Your task to perform on an android device: Clear all items from cart on bestbuy.com. Image 0: 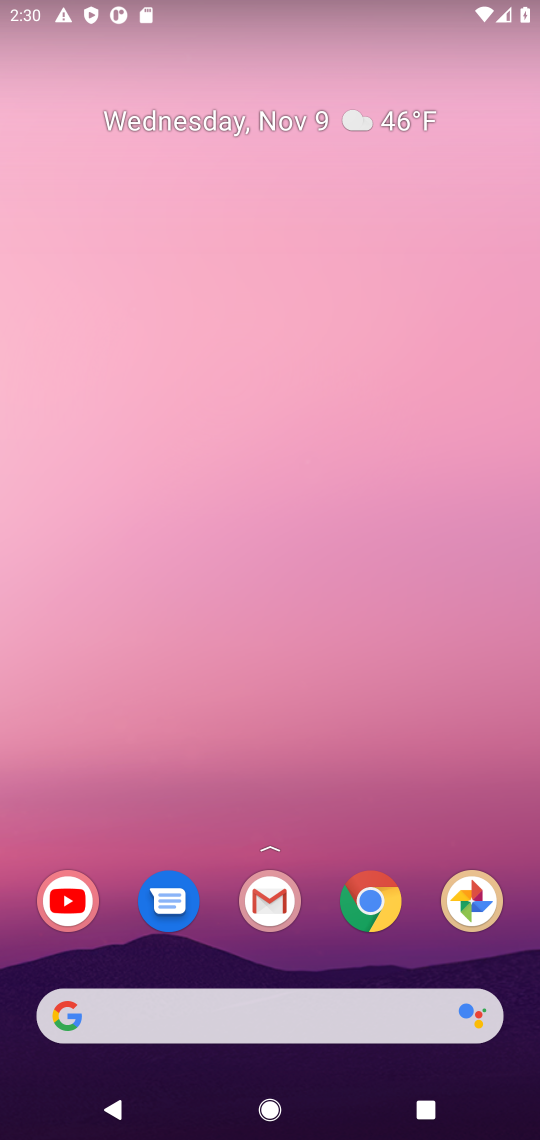
Step 0: click (369, 899)
Your task to perform on an android device: Clear all items from cart on bestbuy.com. Image 1: 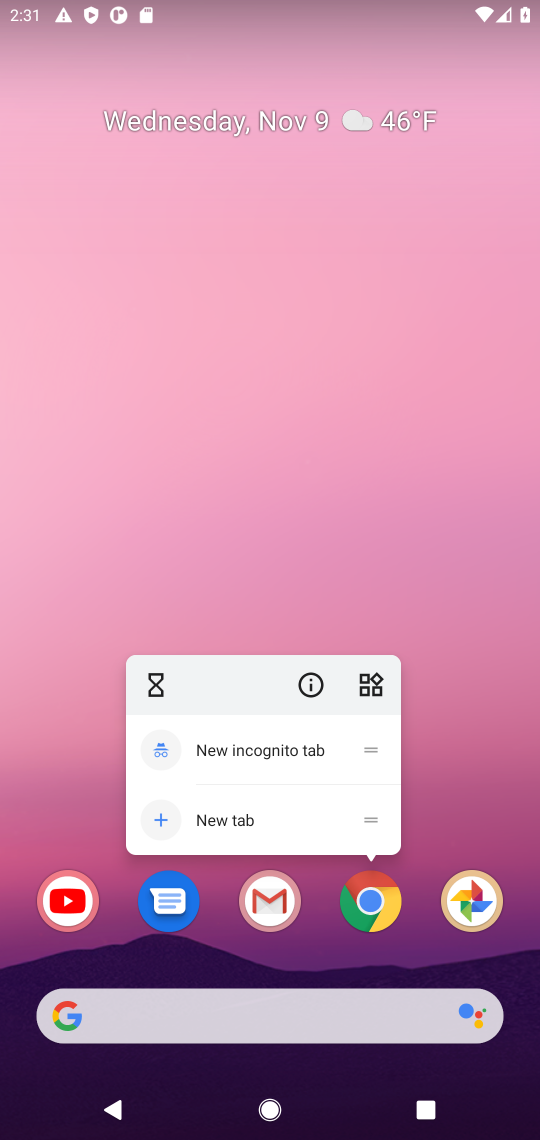
Step 1: click (369, 899)
Your task to perform on an android device: Clear all items from cart on bestbuy.com. Image 2: 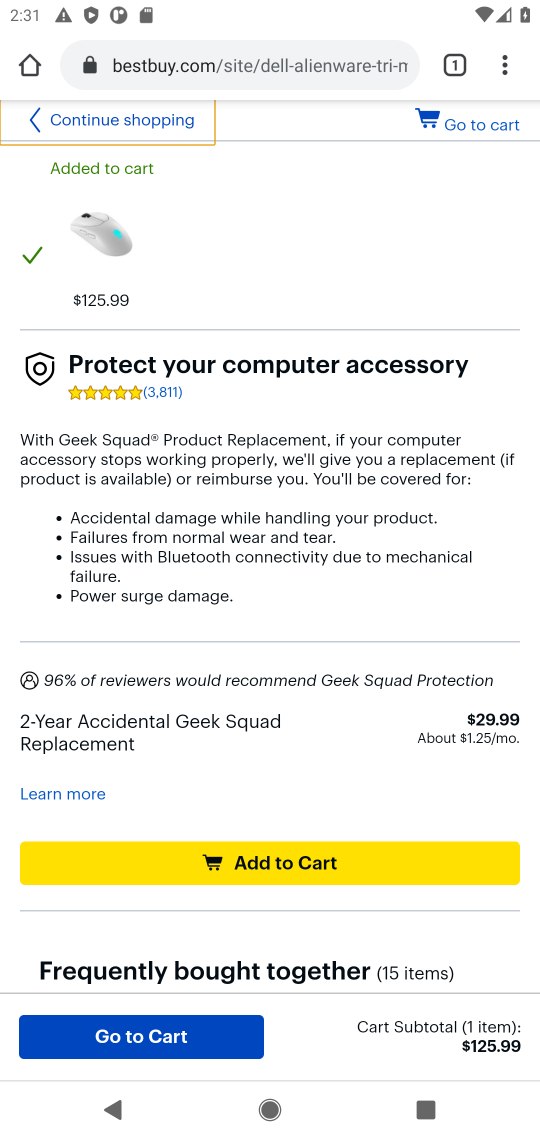
Step 2: drag from (357, 212) to (439, 824)
Your task to perform on an android device: Clear all items from cart on bestbuy.com. Image 3: 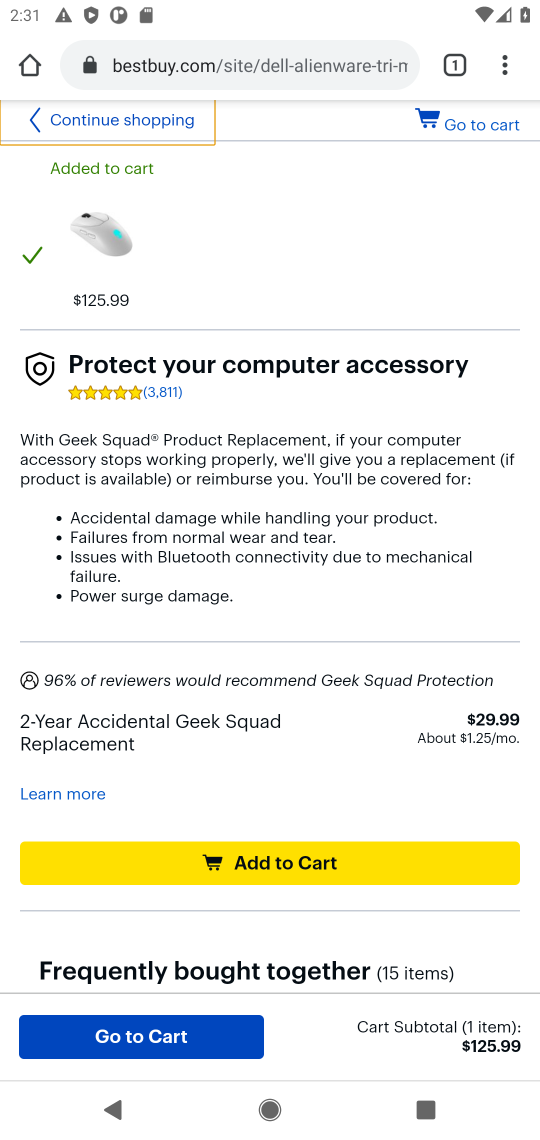
Step 3: drag from (399, 274) to (344, 722)
Your task to perform on an android device: Clear all items from cart on bestbuy.com. Image 4: 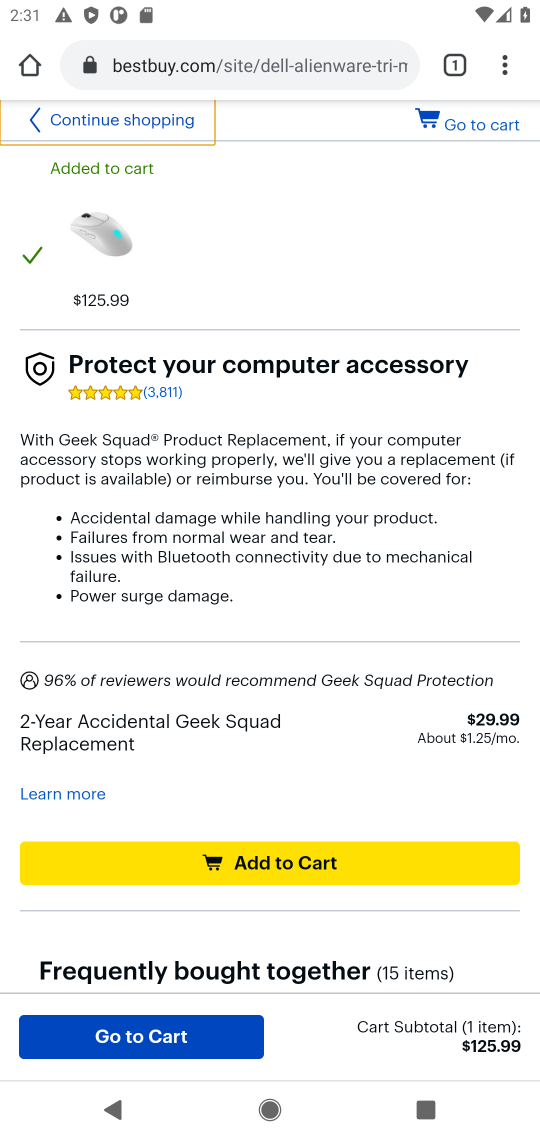
Step 4: drag from (399, 226) to (423, 1001)
Your task to perform on an android device: Clear all items from cart on bestbuy.com. Image 5: 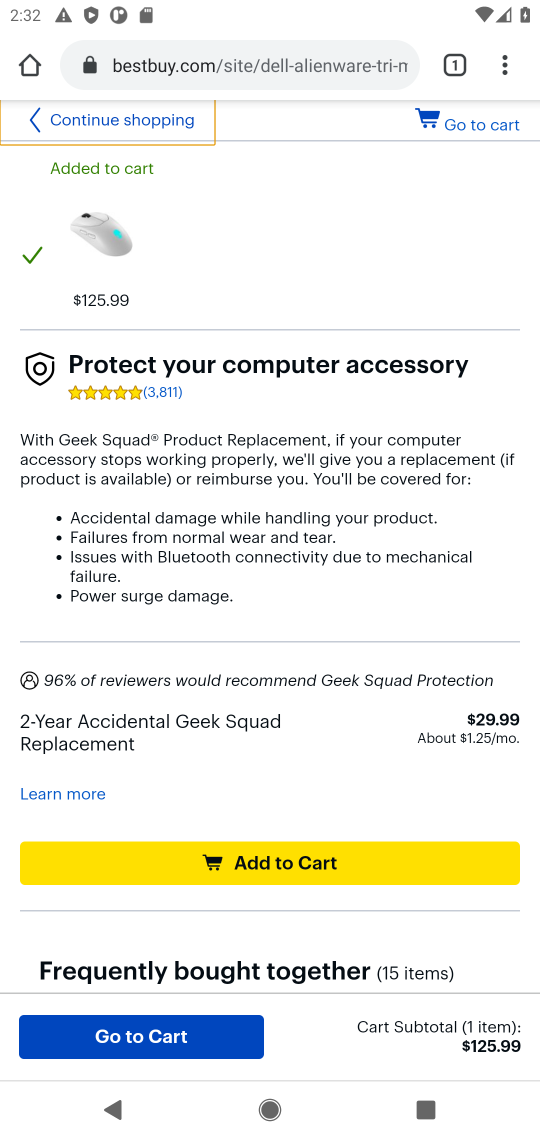
Step 5: drag from (441, 624) to (413, 1086)
Your task to perform on an android device: Clear all items from cart on bestbuy.com. Image 6: 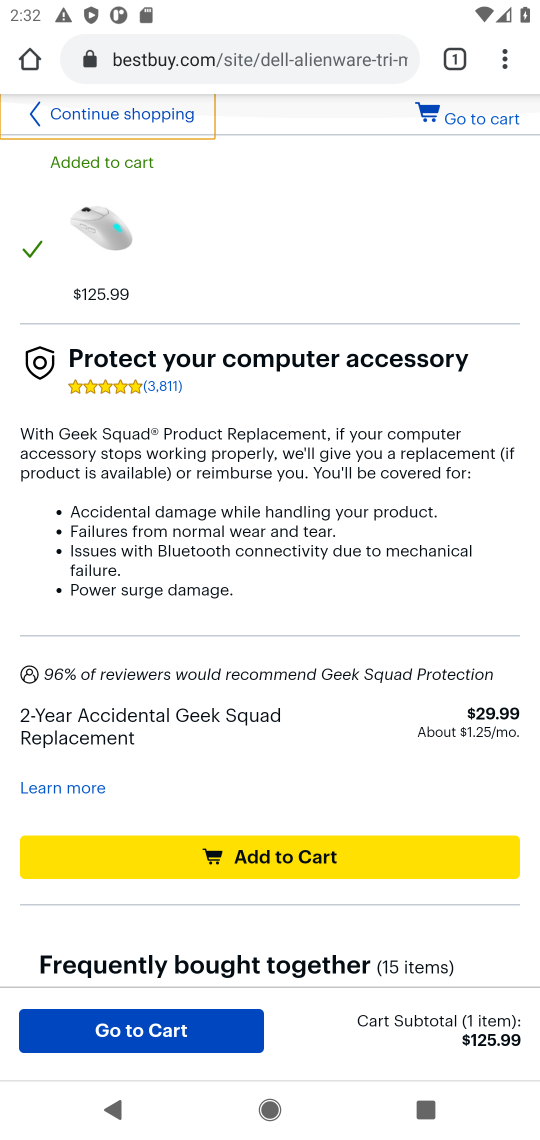
Step 6: drag from (405, 367) to (443, 987)
Your task to perform on an android device: Clear all items from cart on bestbuy.com. Image 7: 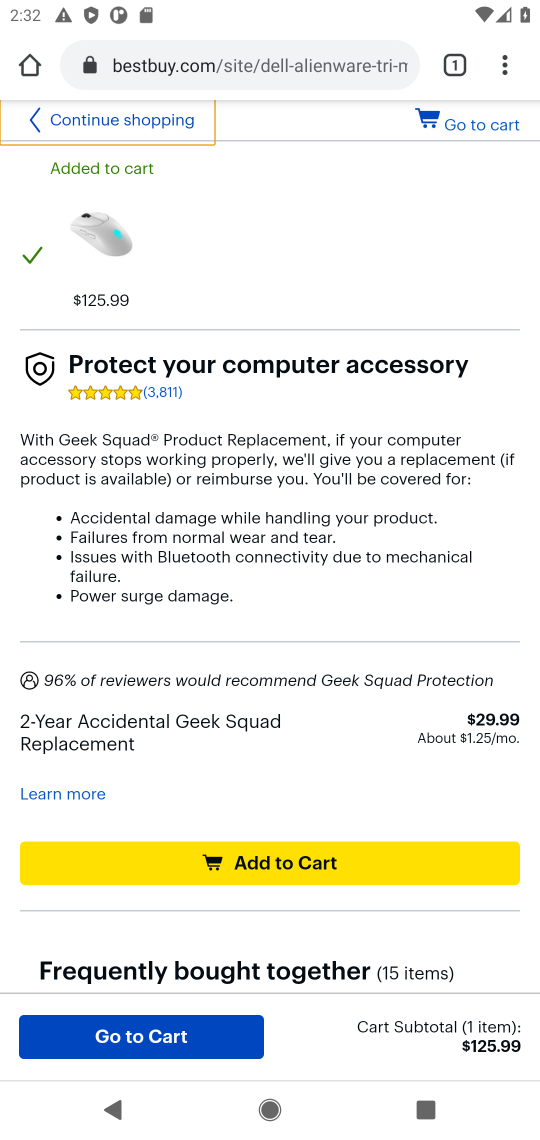
Step 7: drag from (457, 328) to (494, 862)
Your task to perform on an android device: Clear all items from cart on bestbuy.com. Image 8: 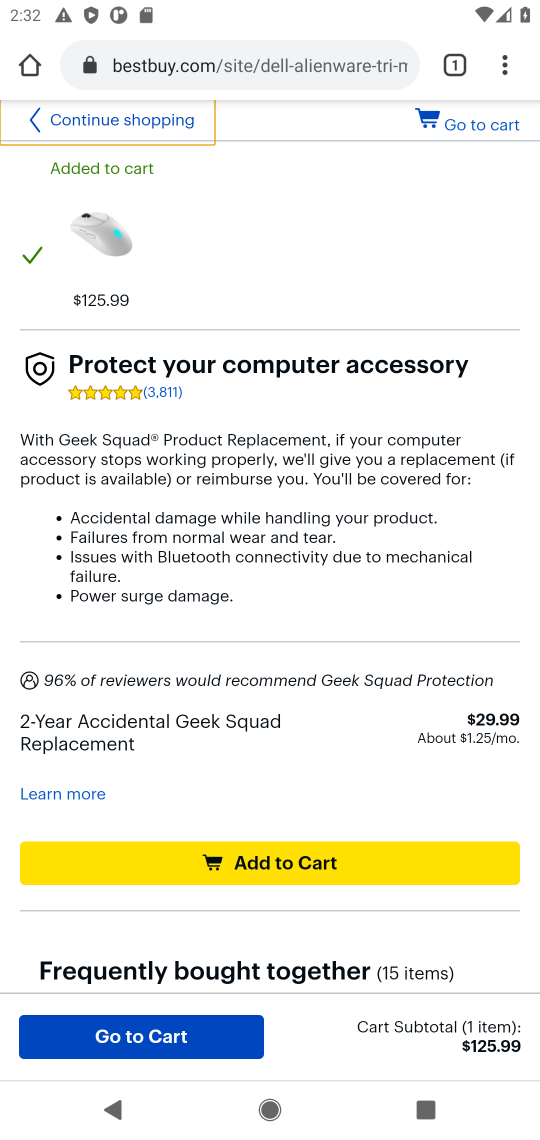
Step 8: press back button
Your task to perform on an android device: Clear all items from cart on bestbuy.com. Image 9: 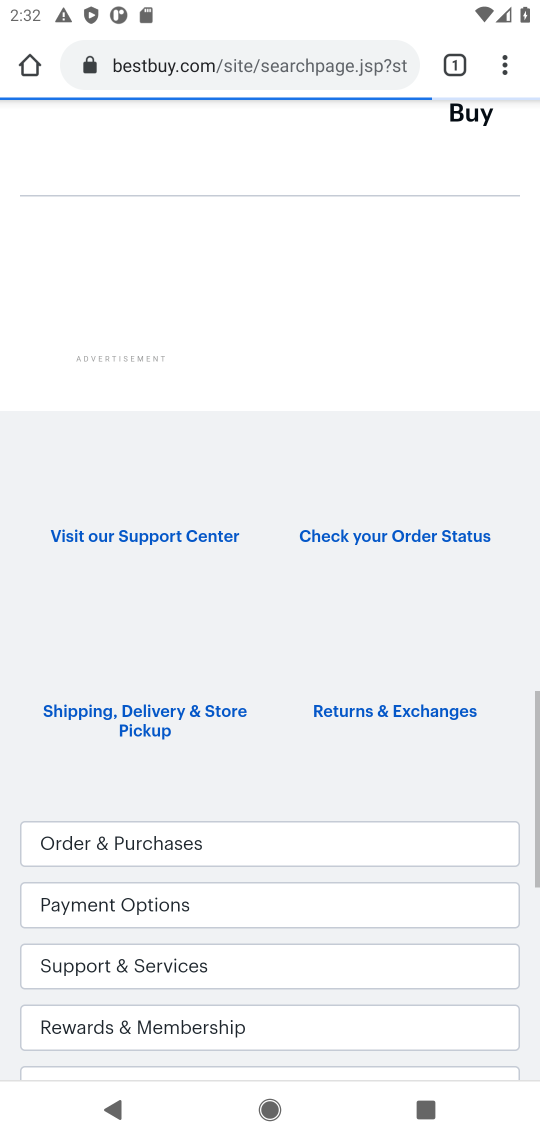
Step 9: click (505, 187)
Your task to perform on an android device: Clear all items from cart on bestbuy.com. Image 10: 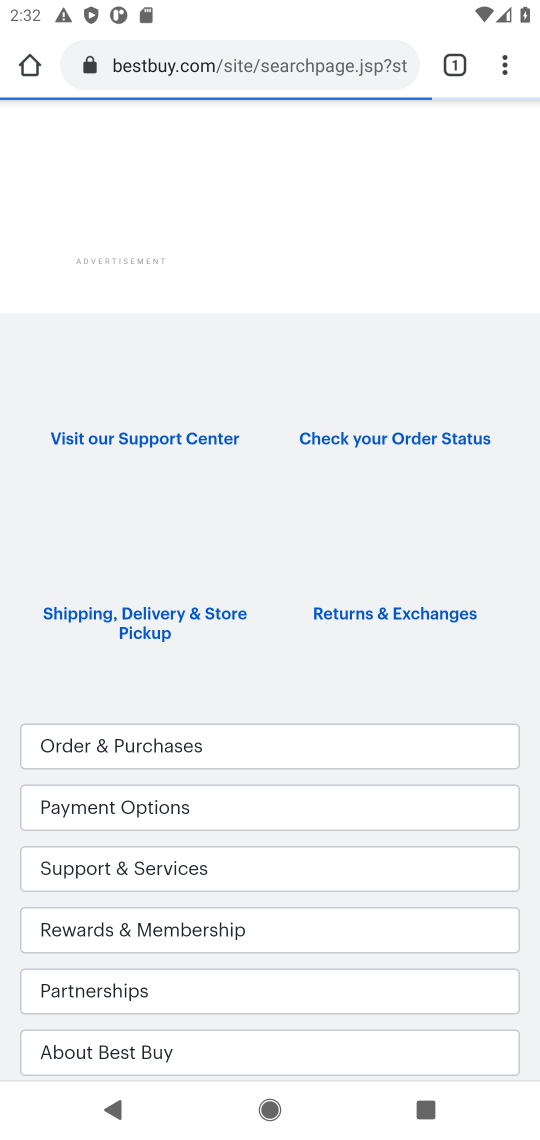
Step 10: drag from (503, 185) to (448, 692)
Your task to perform on an android device: Clear all items from cart on bestbuy.com. Image 11: 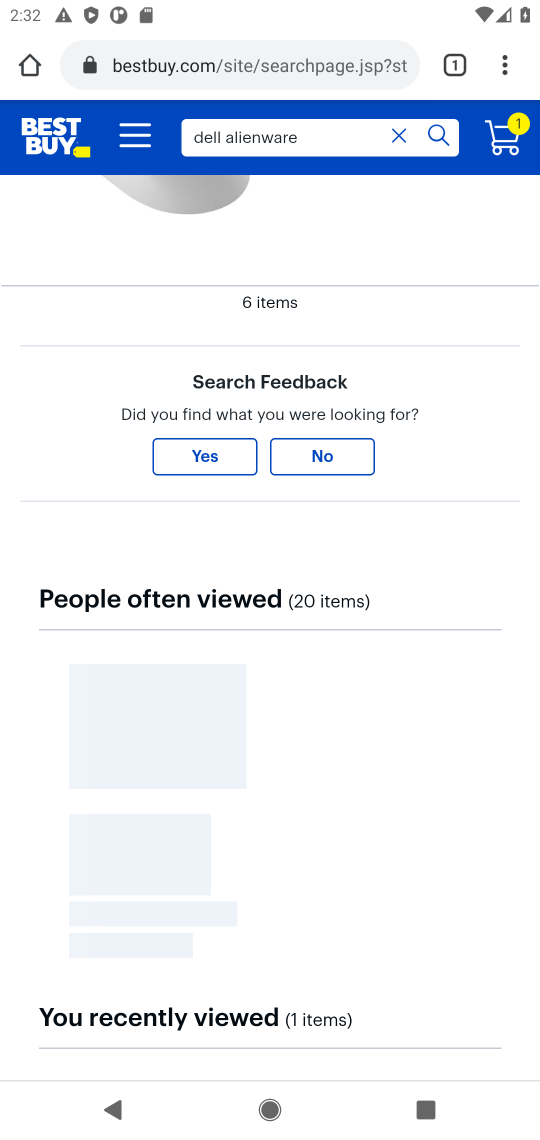
Step 11: click (490, 130)
Your task to perform on an android device: Clear all items from cart on bestbuy.com. Image 12: 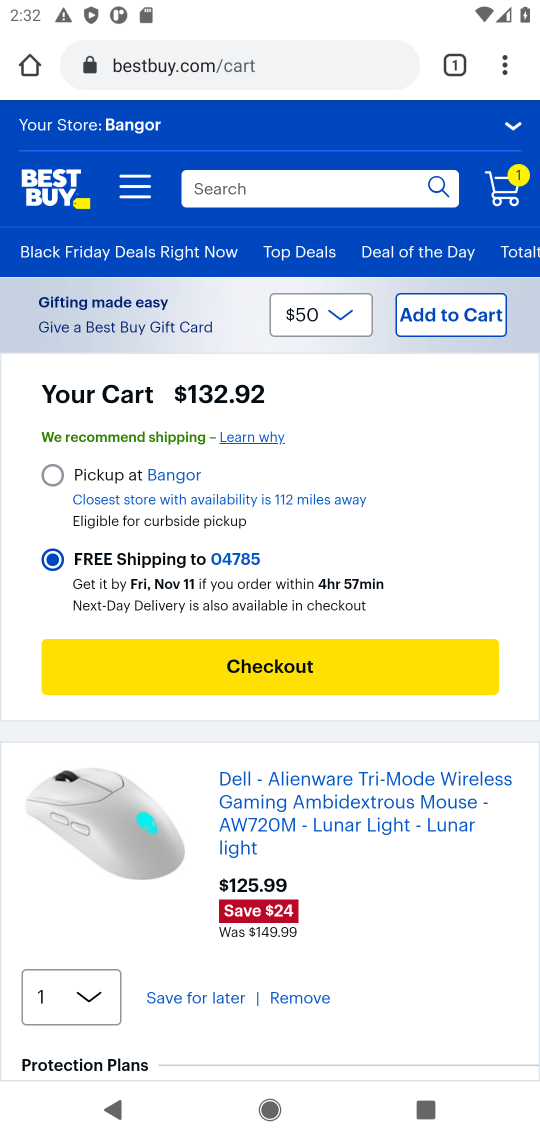
Step 12: drag from (339, 866) to (419, 459)
Your task to perform on an android device: Clear all items from cart on bestbuy.com. Image 13: 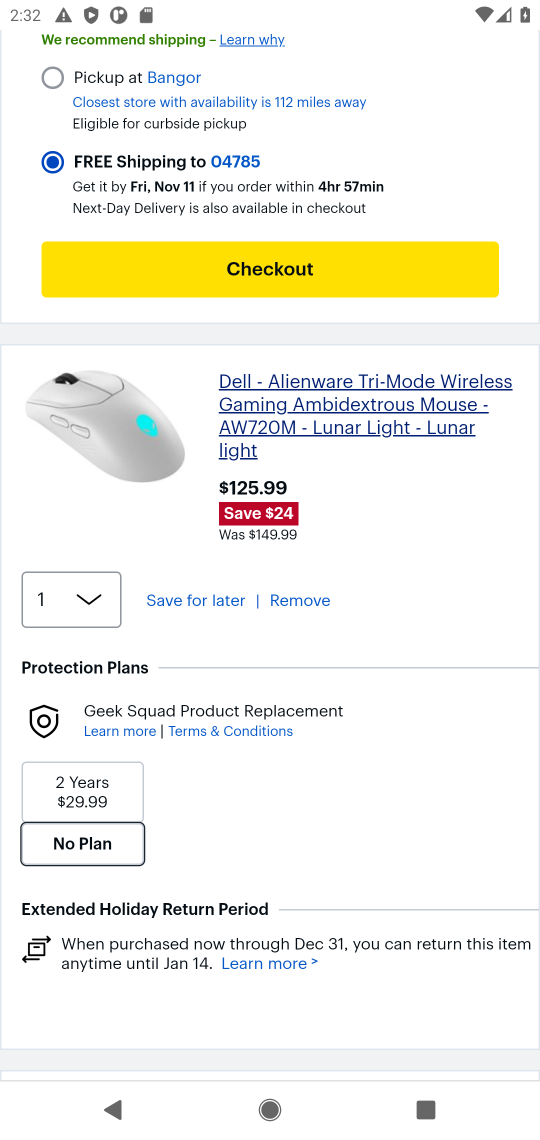
Step 13: click (302, 591)
Your task to perform on an android device: Clear all items from cart on bestbuy.com. Image 14: 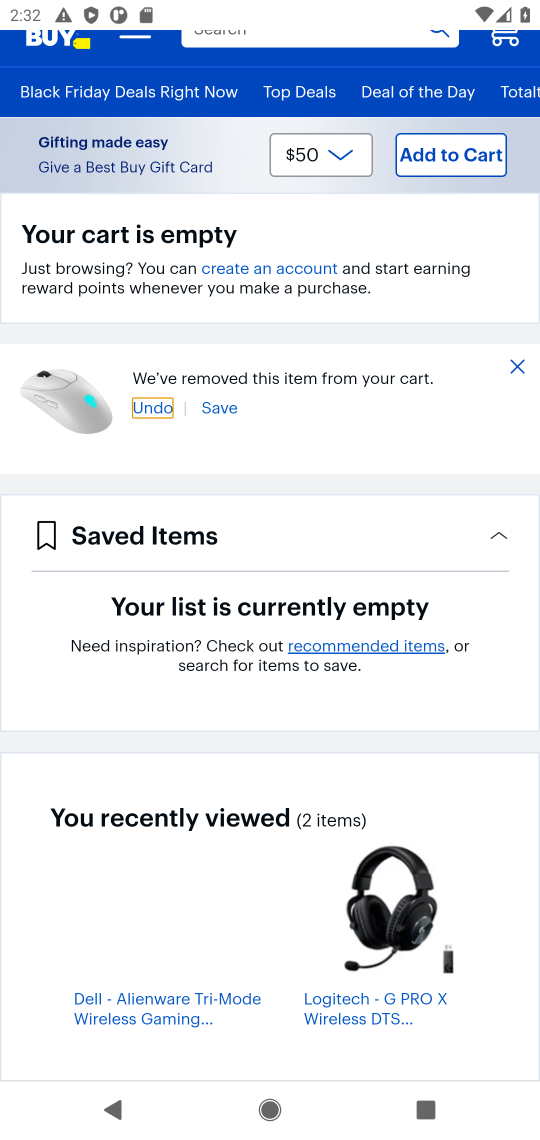
Step 14: task complete